Your task to perform on an android device: move a message to another label in the gmail app Image 0: 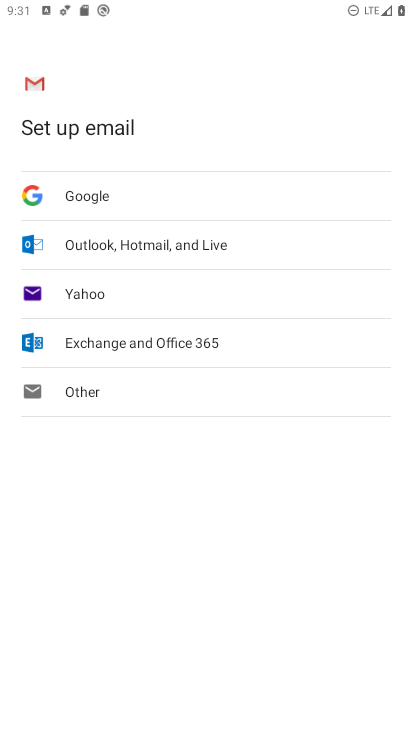
Step 0: press home button
Your task to perform on an android device: move a message to another label in the gmail app Image 1: 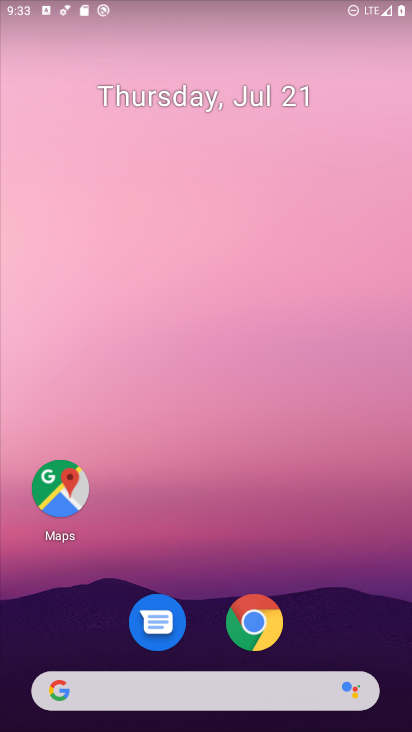
Step 1: drag from (78, 702) to (133, 123)
Your task to perform on an android device: move a message to another label in the gmail app Image 2: 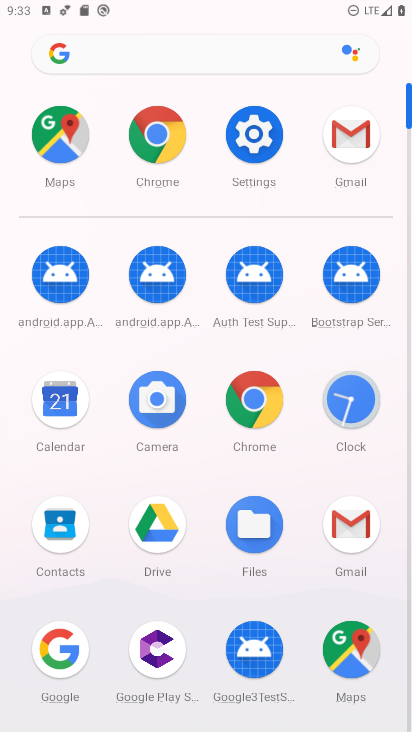
Step 2: click (338, 141)
Your task to perform on an android device: move a message to another label in the gmail app Image 3: 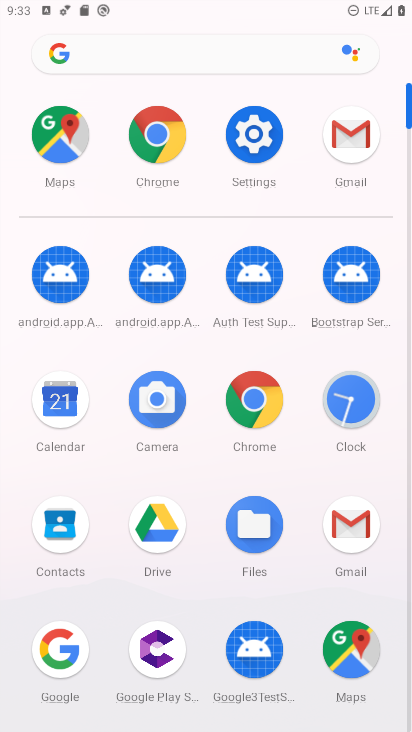
Step 3: click (338, 141)
Your task to perform on an android device: move a message to another label in the gmail app Image 4: 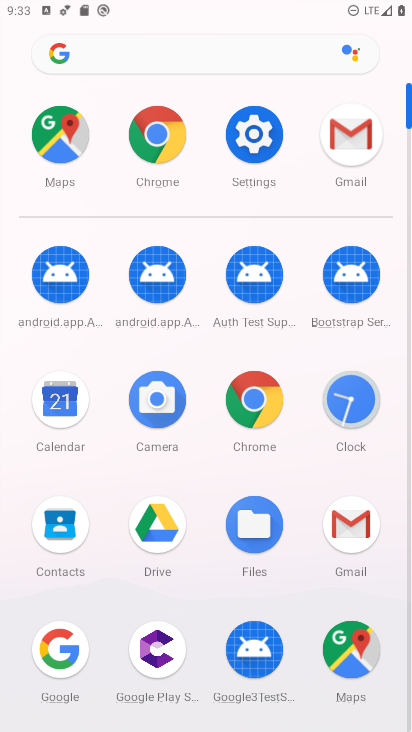
Step 4: click (338, 141)
Your task to perform on an android device: move a message to another label in the gmail app Image 5: 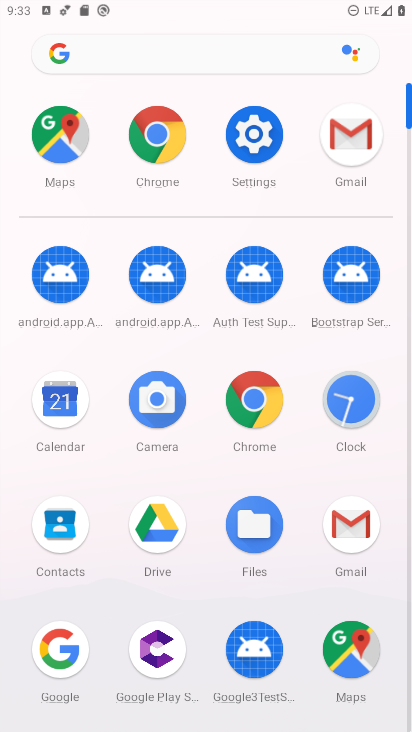
Step 5: click (338, 141)
Your task to perform on an android device: move a message to another label in the gmail app Image 6: 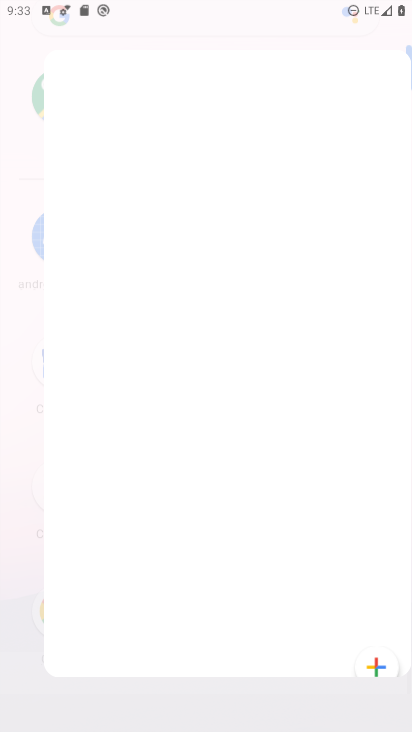
Step 6: click (338, 141)
Your task to perform on an android device: move a message to another label in the gmail app Image 7: 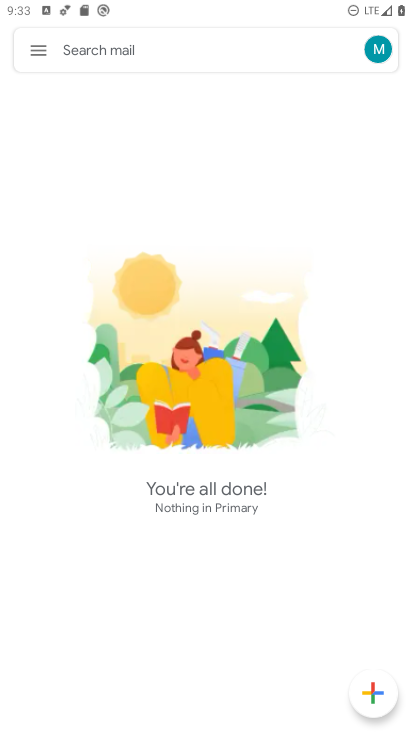
Step 7: task complete